Your task to perform on an android device: change your default location settings in chrome Image 0: 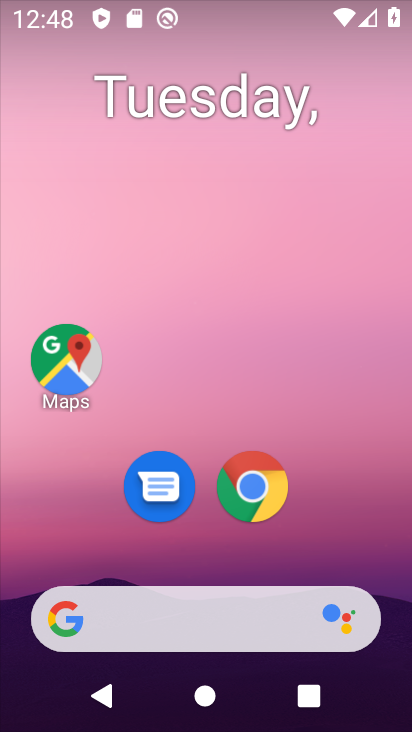
Step 0: drag from (400, 543) to (320, 145)
Your task to perform on an android device: change your default location settings in chrome Image 1: 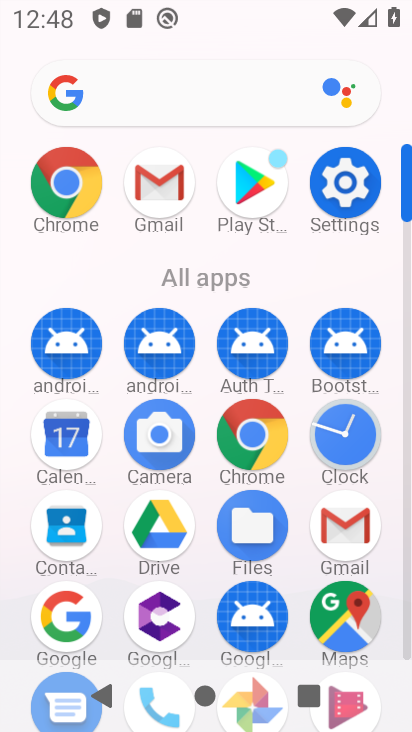
Step 1: click (71, 206)
Your task to perform on an android device: change your default location settings in chrome Image 2: 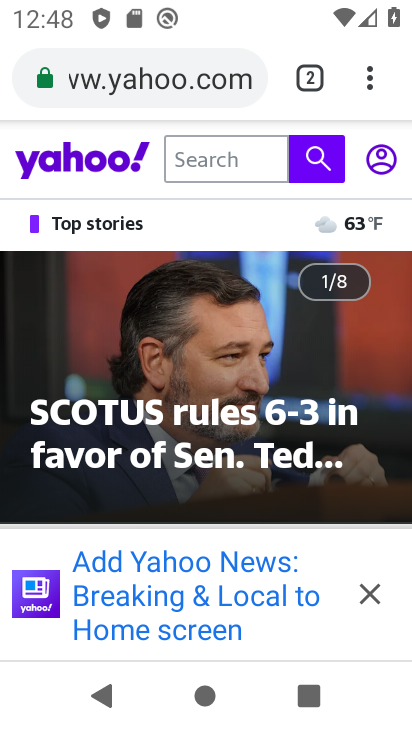
Step 2: click (366, 81)
Your task to perform on an android device: change your default location settings in chrome Image 3: 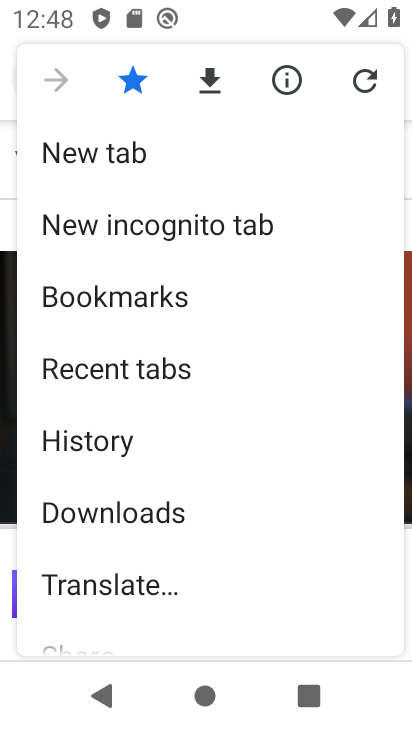
Step 3: drag from (243, 620) to (230, 301)
Your task to perform on an android device: change your default location settings in chrome Image 4: 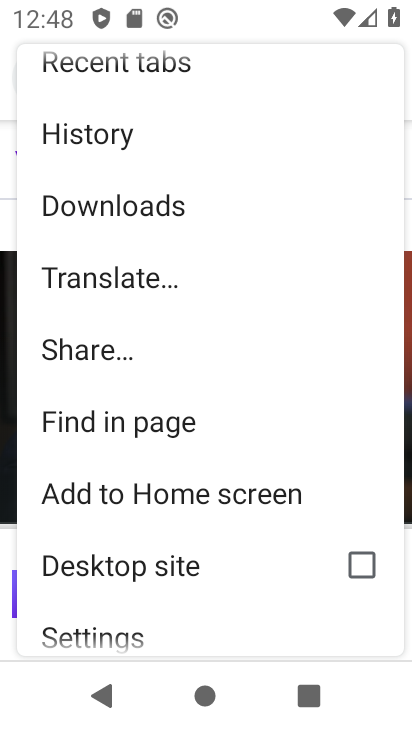
Step 4: drag from (261, 579) to (237, 225)
Your task to perform on an android device: change your default location settings in chrome Image 5: 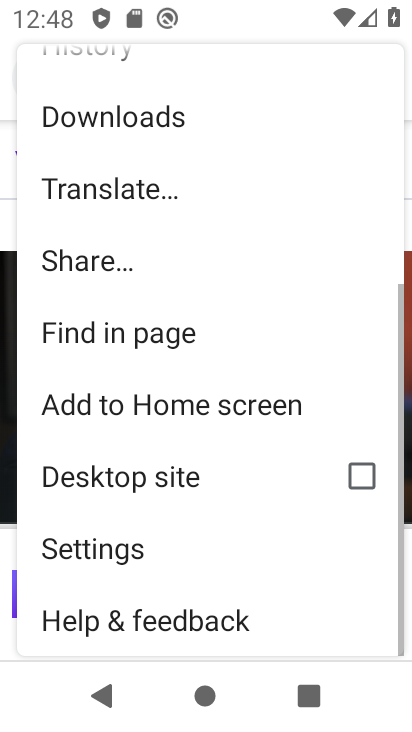
Step 5: click (196, 552)
Your task to perform on an android device: change your default location settings in chrome Image 6: 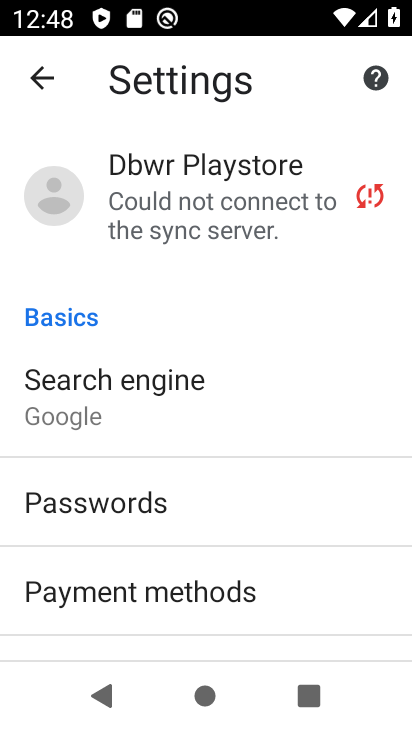
Step 6: drag from (255, 651) to (191, 168)
Your task to perform on an android device: change your default location settings in chrome Image 7: 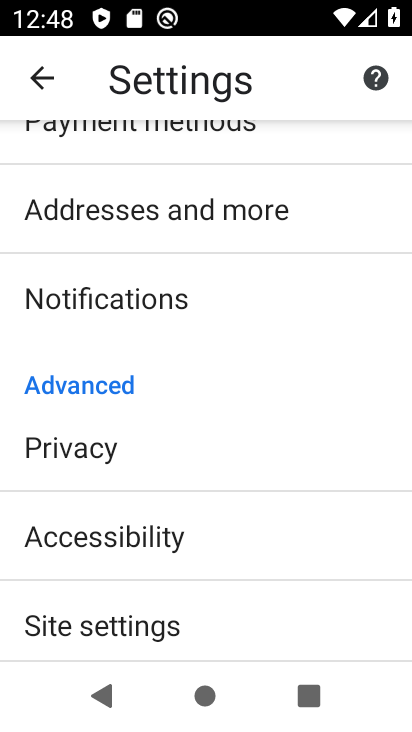
Step 7: click (259, 639)
Your task to perform on an android device: change your default location settings in chrome Image 8: 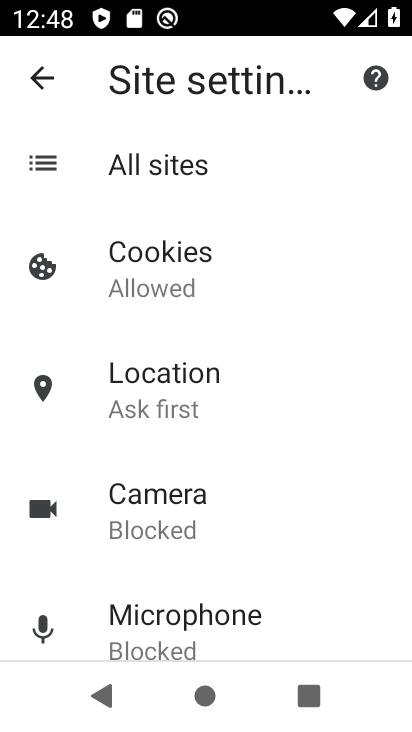
Step 8: click (227, 415)
Your task to perform on an android device: change your default location settings in chrome Image 9: 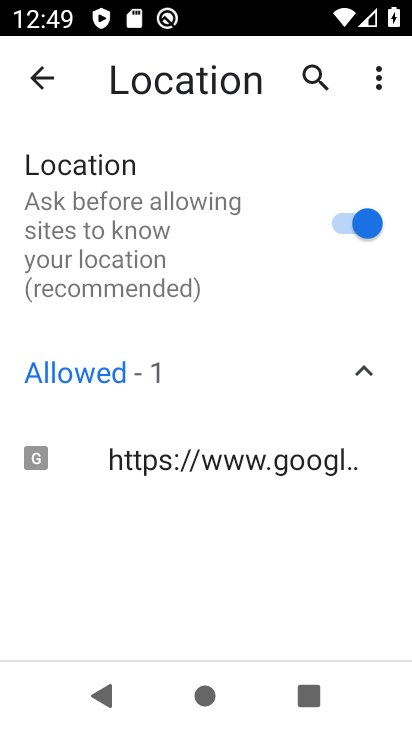
Step 9: task complete